Your task to perform on an android device: delete a single message in the gmail app Image 0: 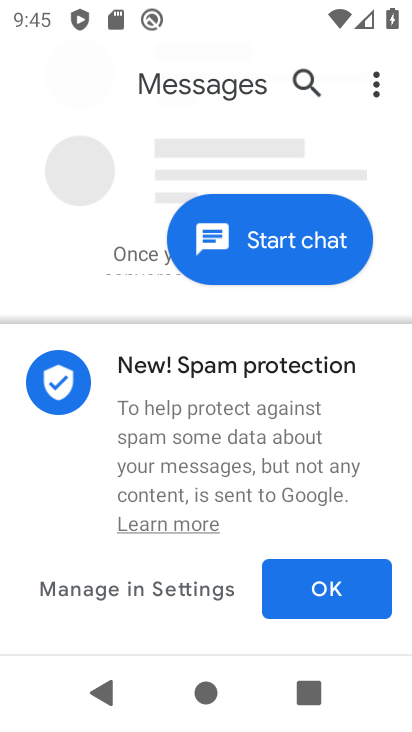
Step 0: press home button
Your task to perform on an android device: delete a single message in the gmail app Image 1: 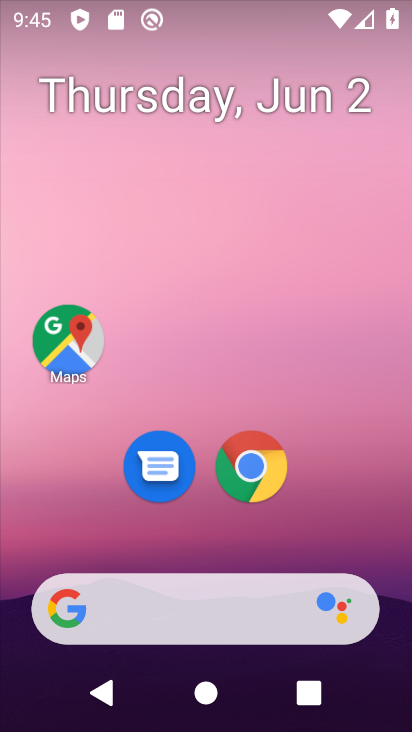
Step 1: drag from (82, 570) to (184, 127)
Your task to perform on an android device: delete a single message in the gmail app Image 2: 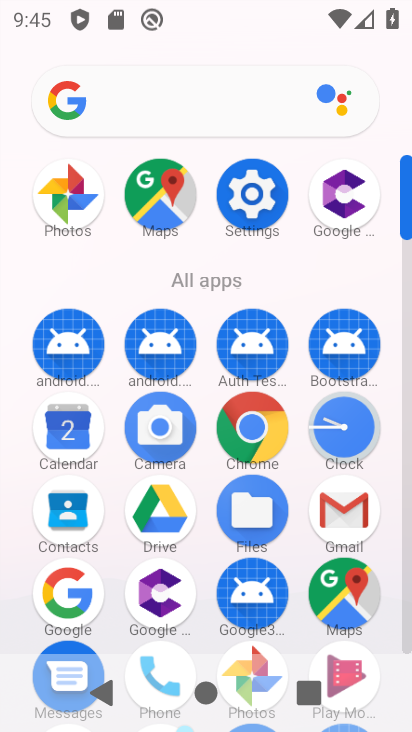
Step 2: drag from (155, 572) to (217, 415)
Your task to perform on an android device: delete a single message in the gmail app Image 3: 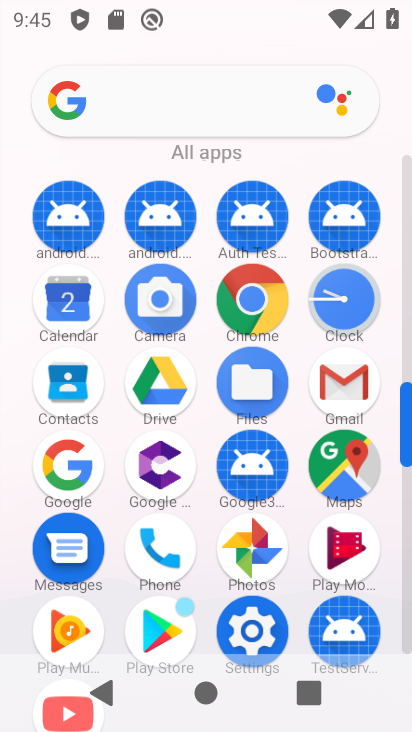
Step 3: click (362, 395)
Your task to perform on an android device: delete a single message in the gmail app Image 4: 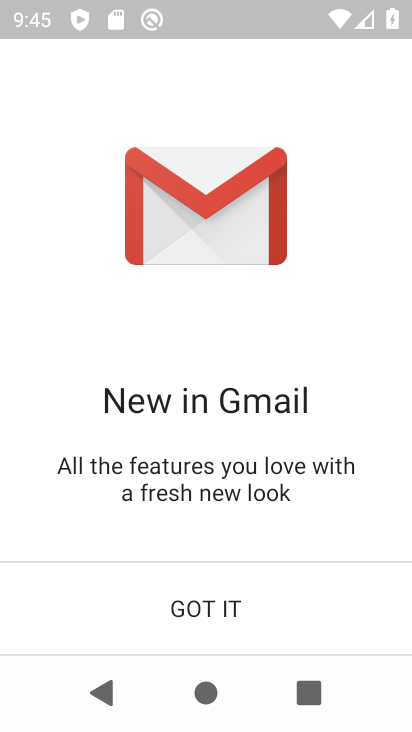
Step 4: click (311, 578)
Your task to perform on an android device: delete a single message in the gmail app Image 5: 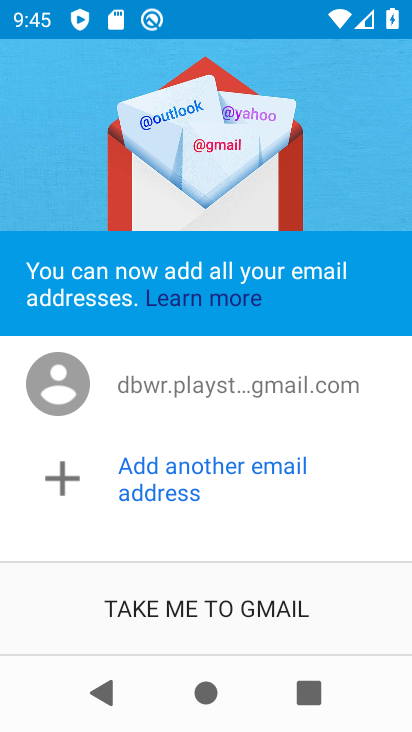
Step 5: click (291, 598)
Your task to perform on an android device: delete a single message in the gmail app Image 6: 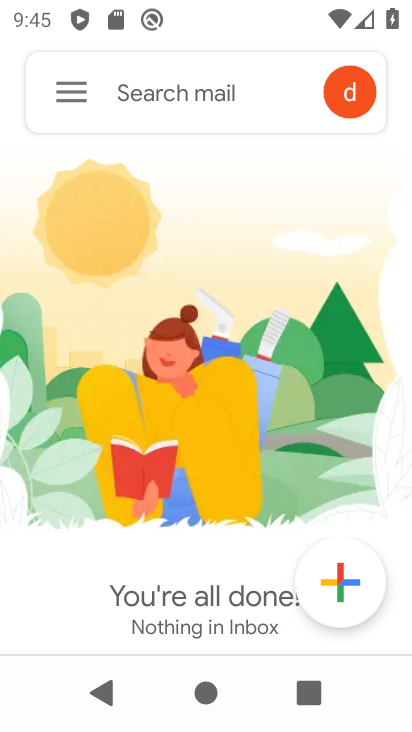
Step 6: click (71, 108)
Your task to perform on an android device: delete a single message in the gmail app Image 7: 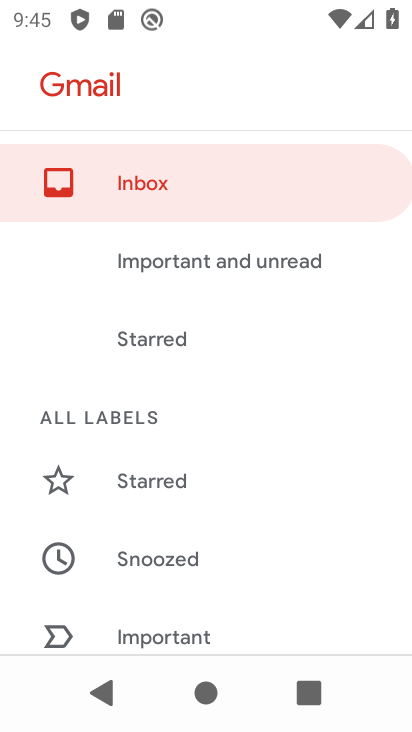
Step 7: drag from (131, 578) to (265, 140)
Your task to perform on an android device: delete a single message in the gmail app Image 8: 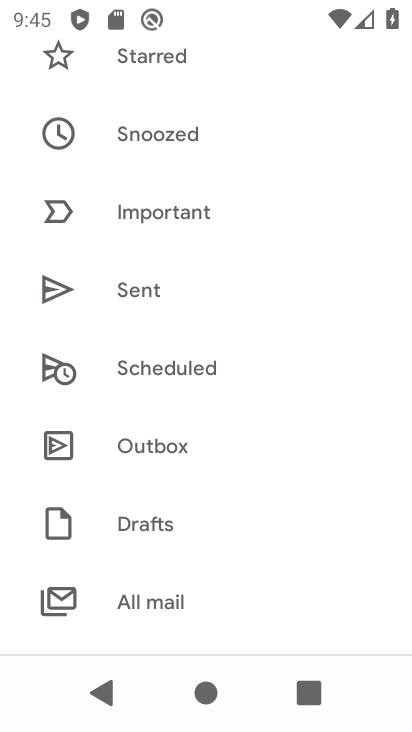
Step 8: drag from (229, 590) to (270, 332)
Your task to perform on an android device: delete a single message in the gmail app Image 9: 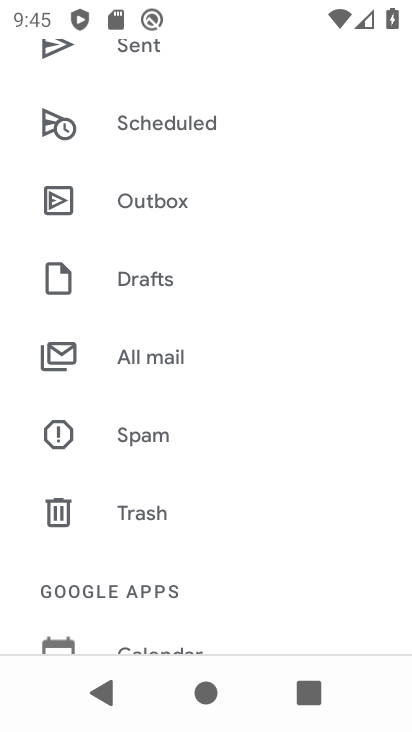
Step 9: click (210, 370)
Your task to perform on an android device: delete a single message in the gmail app Image 10: 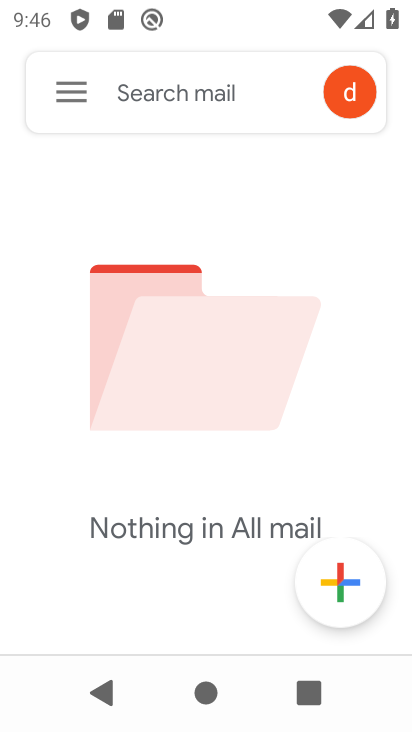
Step 10: task complete